Your task to perform on an android device: Go to sound settings Image 0: 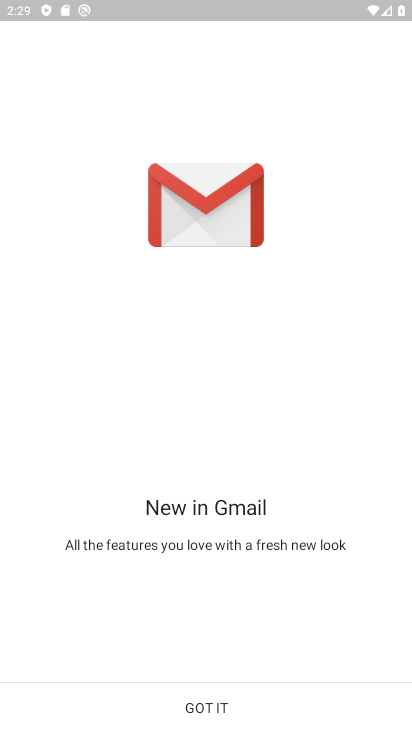
Step 0: press home button
Your task to perform on an android device: Go to sound settings Image 1: 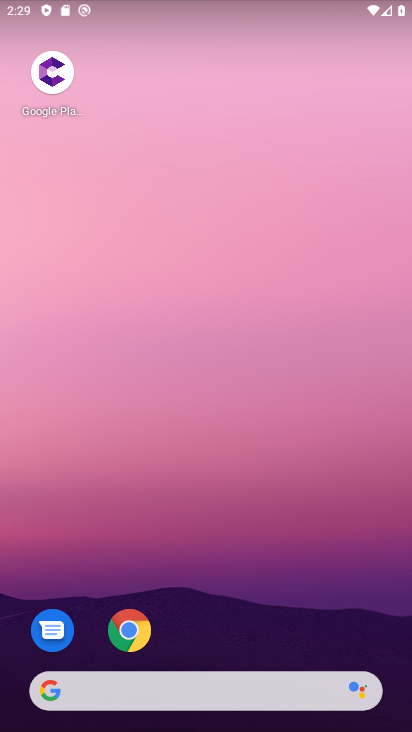
Step 1: drag from (215, 708) to (183, 126)
Your task to perform on an android device: Go to sound settings Image 2: 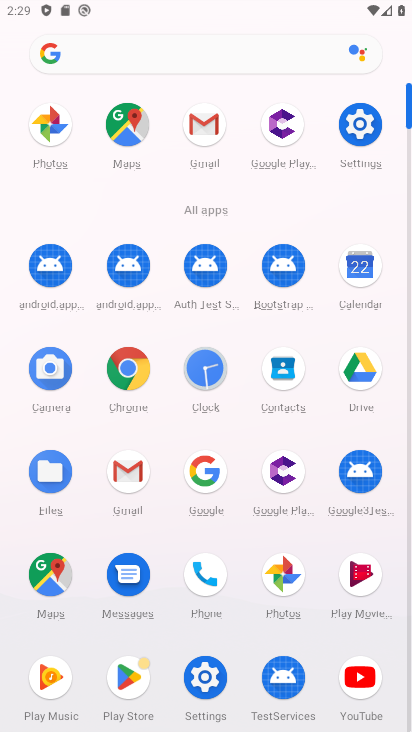
Step 2: click (350, 110)
Your task to perform on an android device: Go to sound settings Image 3: 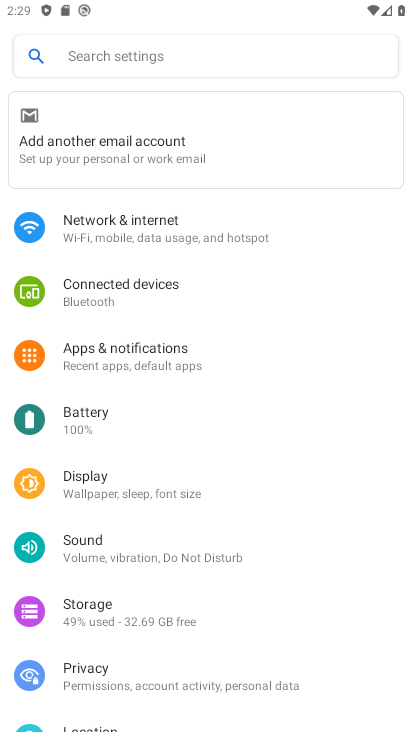
Step 3: click (84, 541)
Your task to perform on an android device: Go to sound settings Image 4: 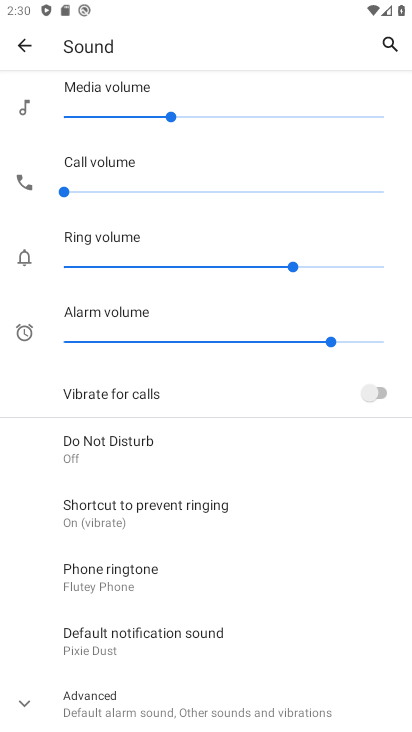
Step 4: task complete